Your task to perform on an android device: Open maps Image 0: 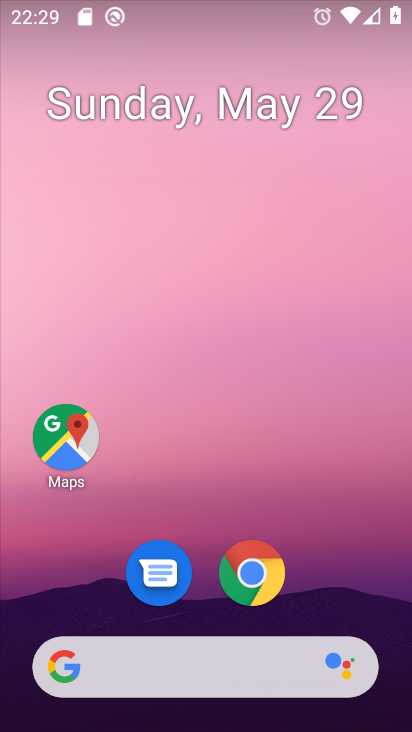
Step 0: click (65, 430)
Your task to perform on an android device: Open maps Image 1: 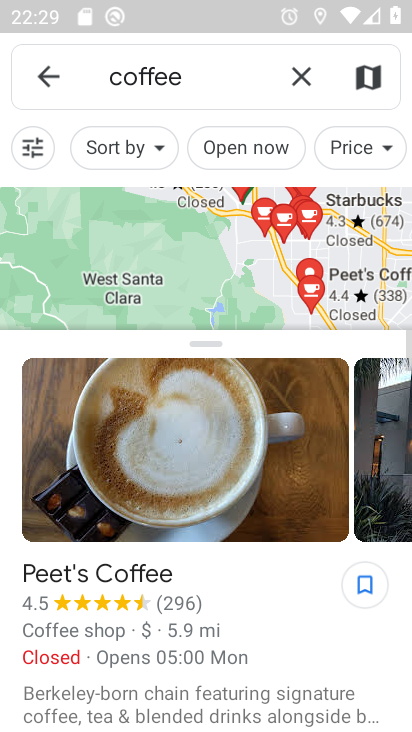
Step 1: click (302, 75)
Your task to perform on an android device: Open maps Image 2: 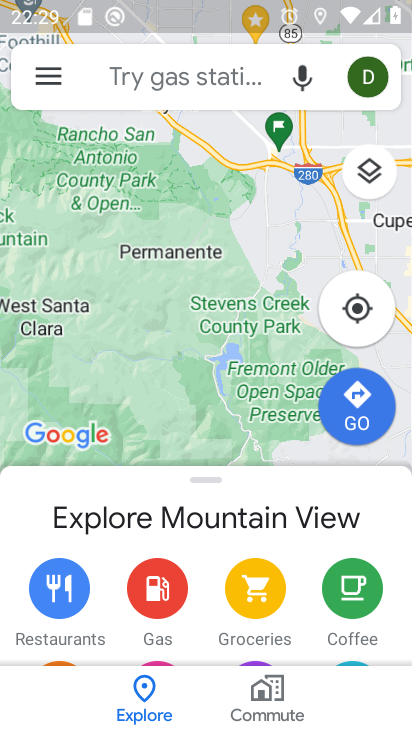
Step 2: task complete